Your task to perform on an android device: Go to display settings Image 0: 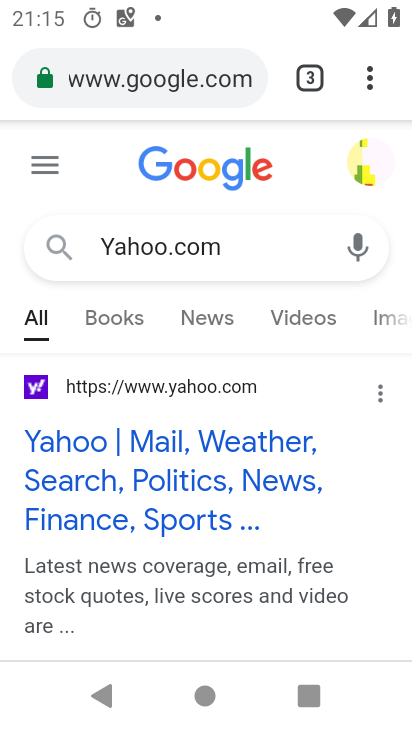
Step 0: press home button
Your task to perform on an android device: Go to display settings Image 1: 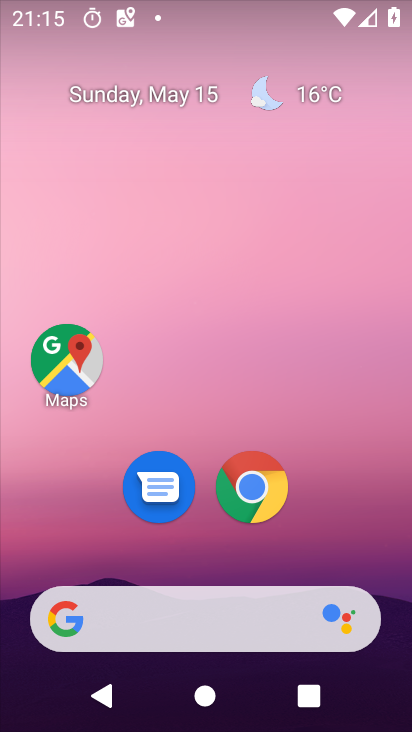
Step 1: drag from (400, 559) to (398, 197)
Your task to perform on an android device: Go to display settings Image 2: 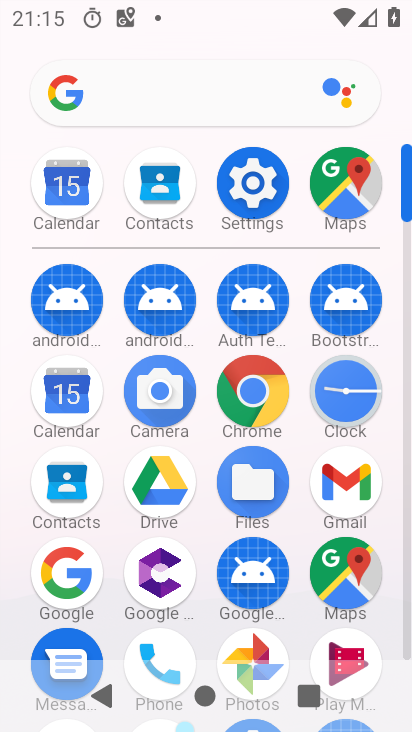
Step 2: click (243, 189)
Your task to perform on an android device: Go to display settings Image 3: 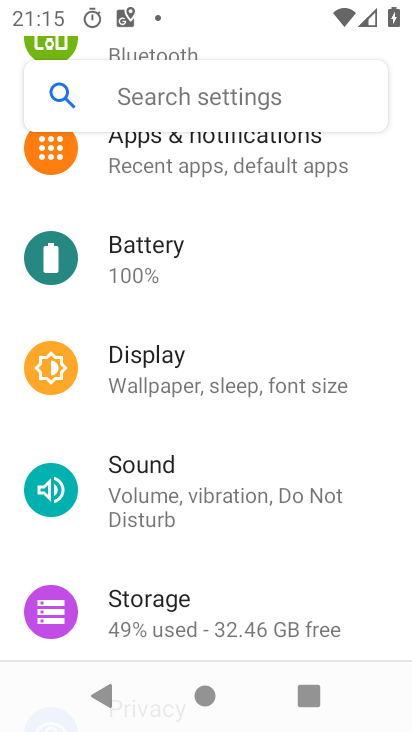
Step 3: click (125, 368)
Your task to perform on an android device: Go to display settings Image 4: 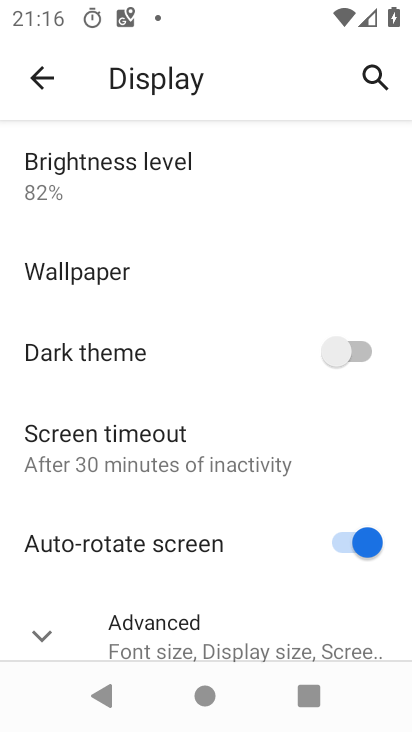
Step 4: task complete